Your task to perform on an android device: delete a single message in the gmail app Image 0: 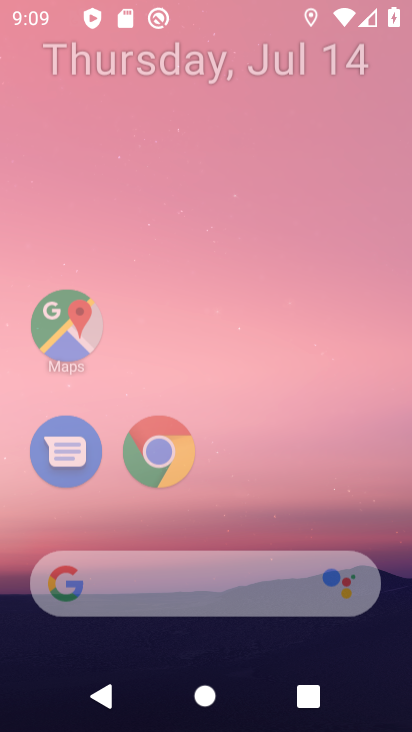
Step 0: click (337, 41)
Your task to perform on an android device: delete a single message in the gmail app Image 1: 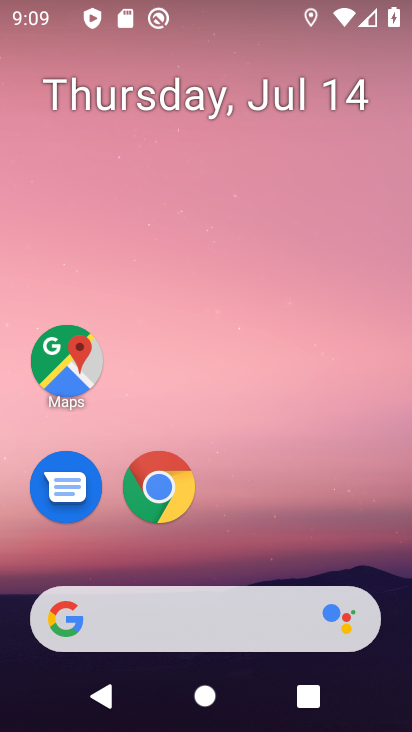
Step 1: drag from (232, 471) to (281, 2)
Your task to perform on an android device: delete a single message in the gmail app Image 2: 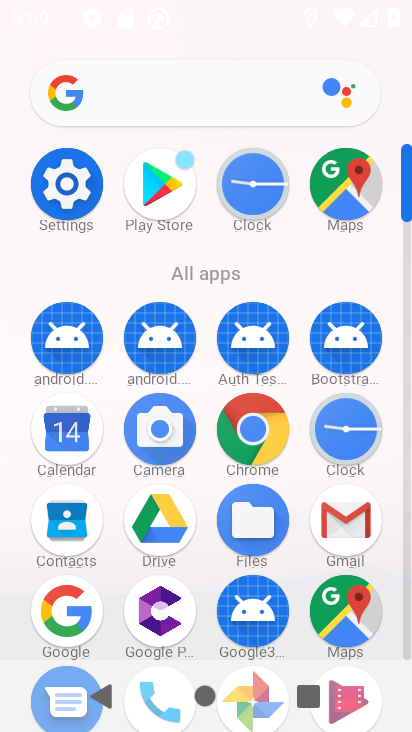
Step 2: click (334, 510)
Your task to perform on an android device: delete a single message in the gmail app Image 3: 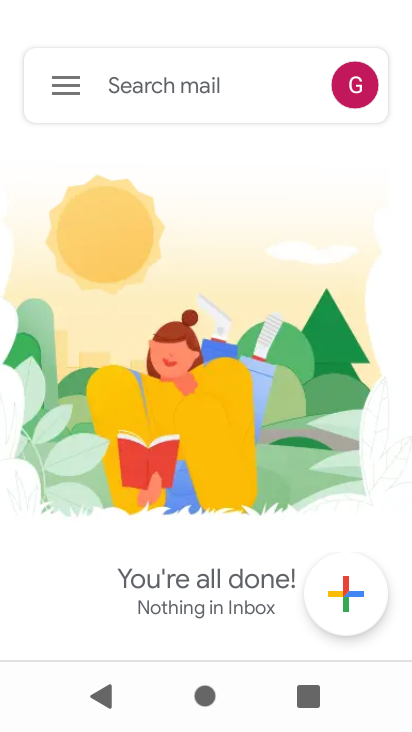
Step 3: click (70, 74)
Your task to perform on an android device: delete a single message in the gmail app Image 4: 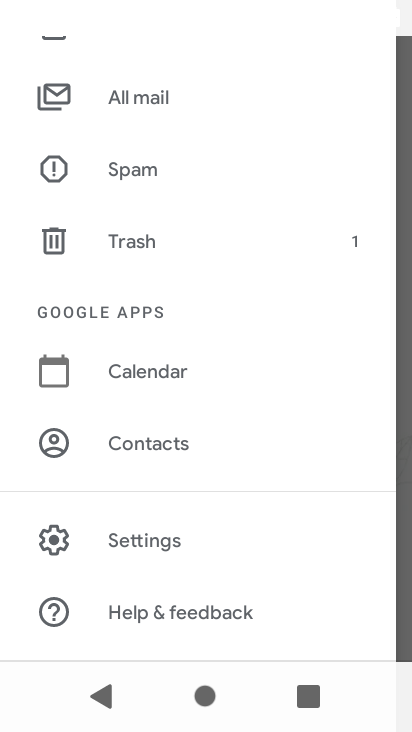
Step 4: click (172, 92)
Your task to perform on an android device: delete a single message in the gmail app Image 5: 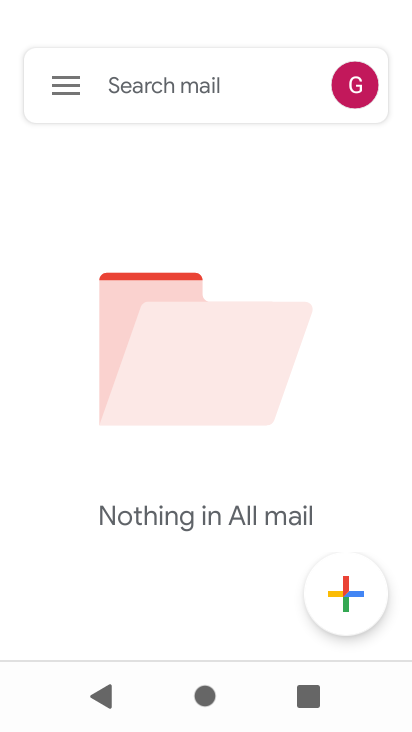
Step 5: task complete